Your task to perform on an android device: Open Yahoo.com Image 0: 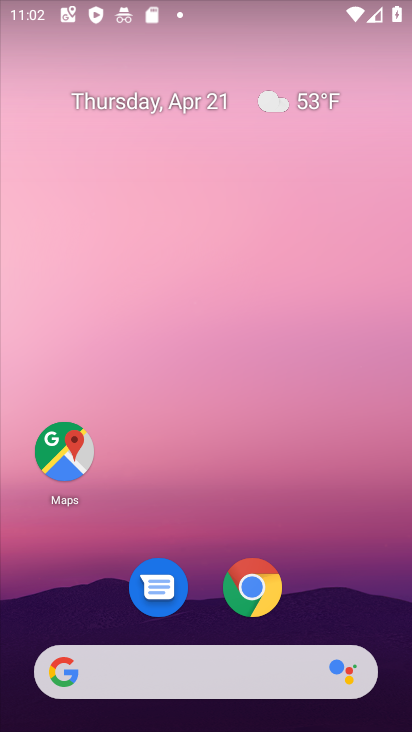
Step 0: click (269, 581)
Your task to perform on an android device: Open Yahoo.com Image 1: 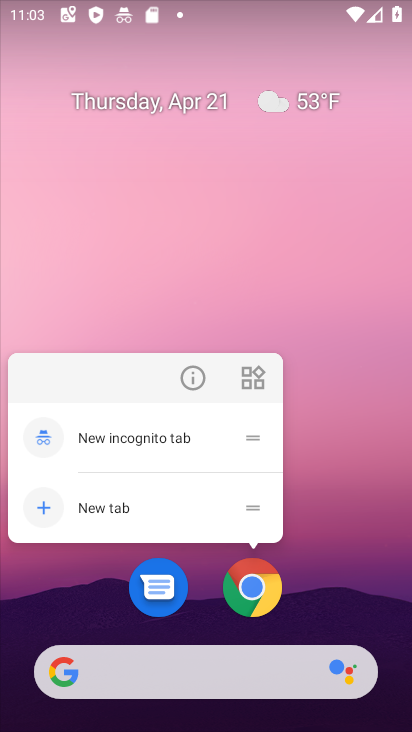
Step 1: click (230, 580)
Your task to perform on an android device: Open Yahoo.com Image 2: 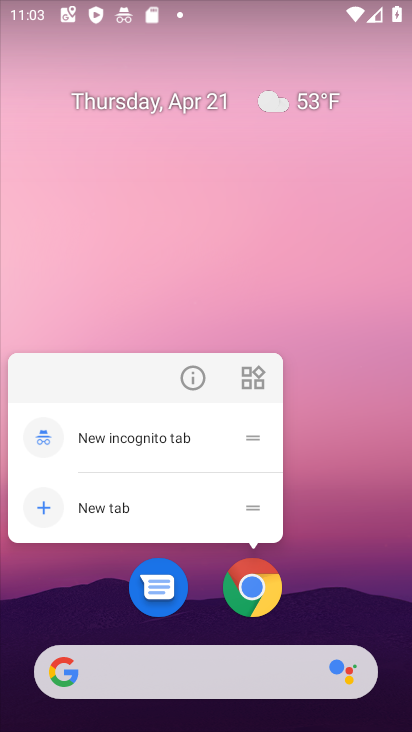
Step 2: click (251, 583)
Your task to perform on an android device: Open Yahoo.com Image 3: 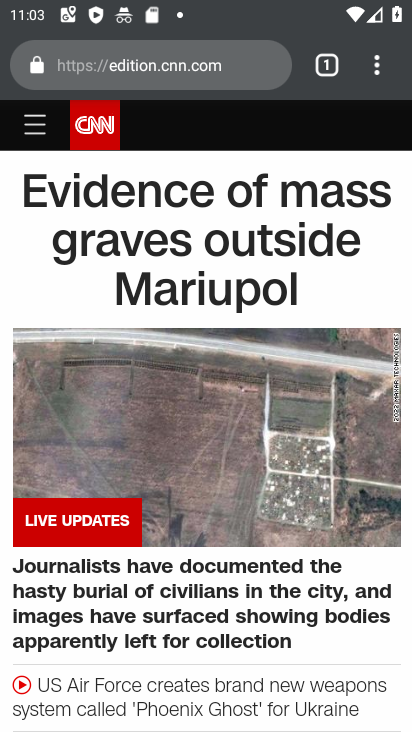
Step 3: click (378, 58)
Your task to perform on an android device: Open Yahoo.com Image 4: 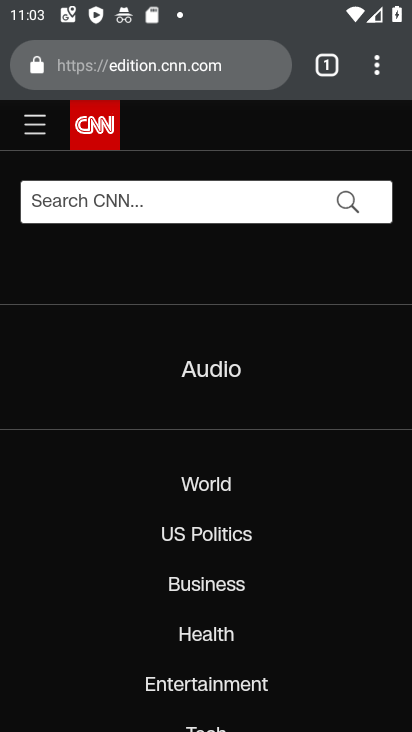
Step 4: click (198, 81)
Your task to perform on an android device: Open Yahoo.com Image 5: 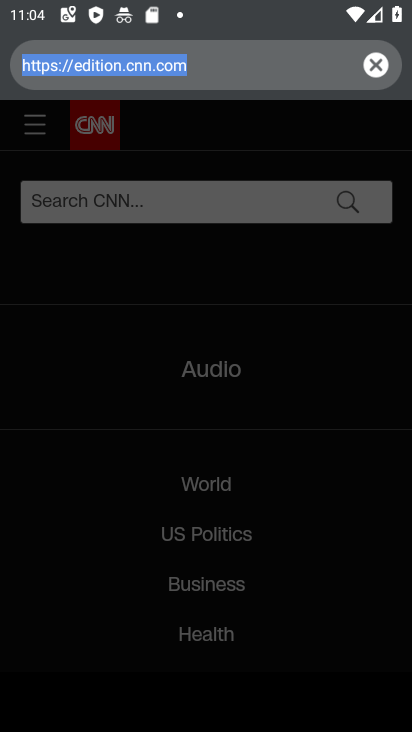
Step 5: type "yahoo.com"
Your task to perform on an android device: Open Yahoo.com Image 6: 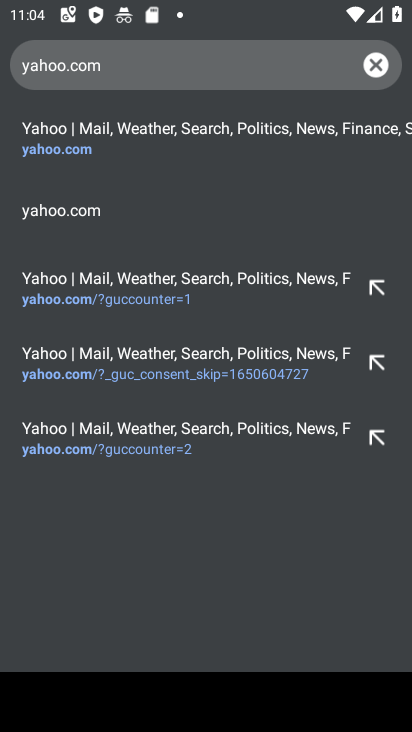
Step 6: click (264, 115)
Your task to perform on an android device: Open Yahoo.com Image 7: 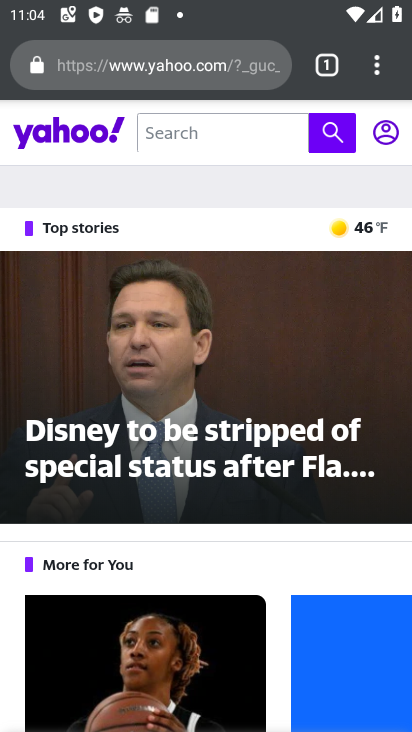
Step 7: task complete